Your task to perform on an android device: Play the last video I watched on Youtube Image 0: 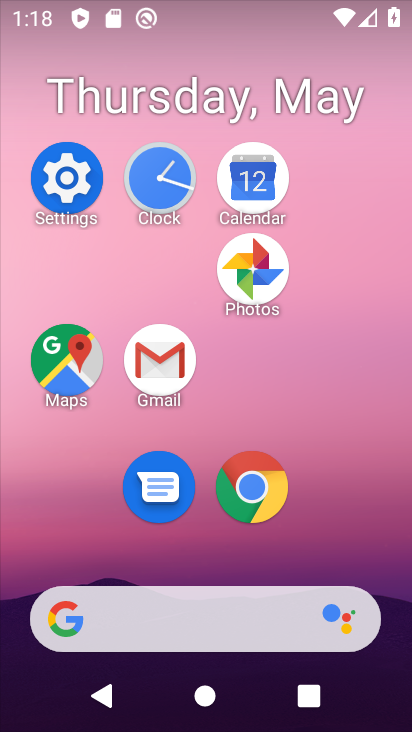
Step 0: drag from (306, 479) to (329, 82)
Your task to perform on an android device: Play the last video I watched on Youtube Image 1: 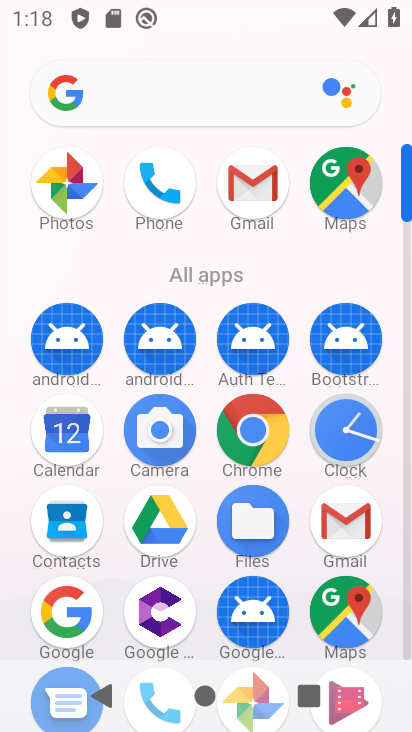
Step 1: drag from (322, 507) to (332, 68)
Your task to perform on an android device: Play the last video I watched on Youtube Image 2: 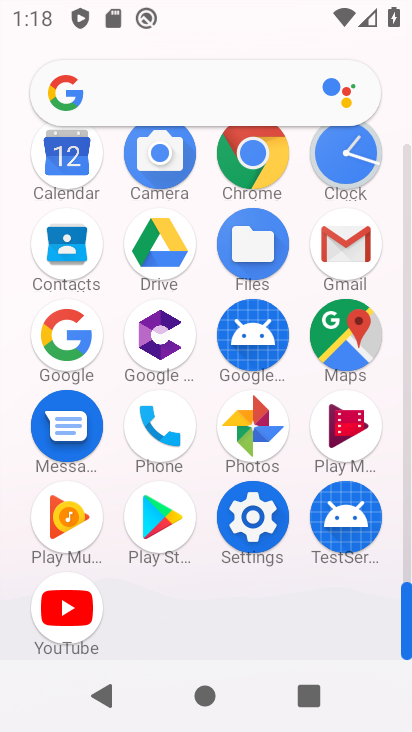
Step 2: drag from (57, 605) to (86, 290)
Your task to perform on an android device: Play the last video I watched on Youtube Image 3: 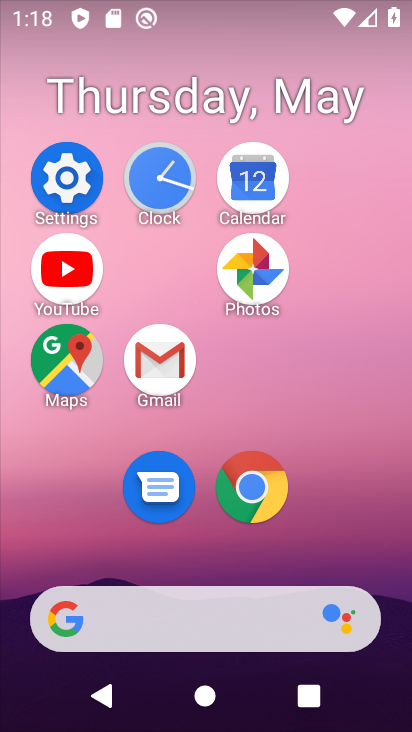
Step 3: click (52, 282)
Your task to perform on an android device: Play the last video I watched on Youtube Image 4: 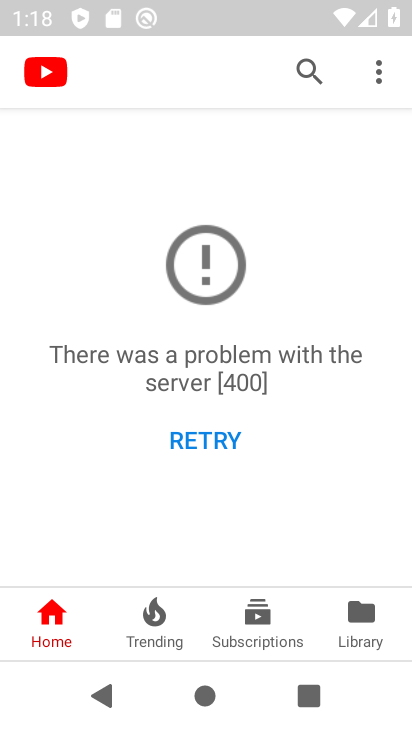
Step 4: task complete